Your task to perform on an android device: add a contact Image 0: 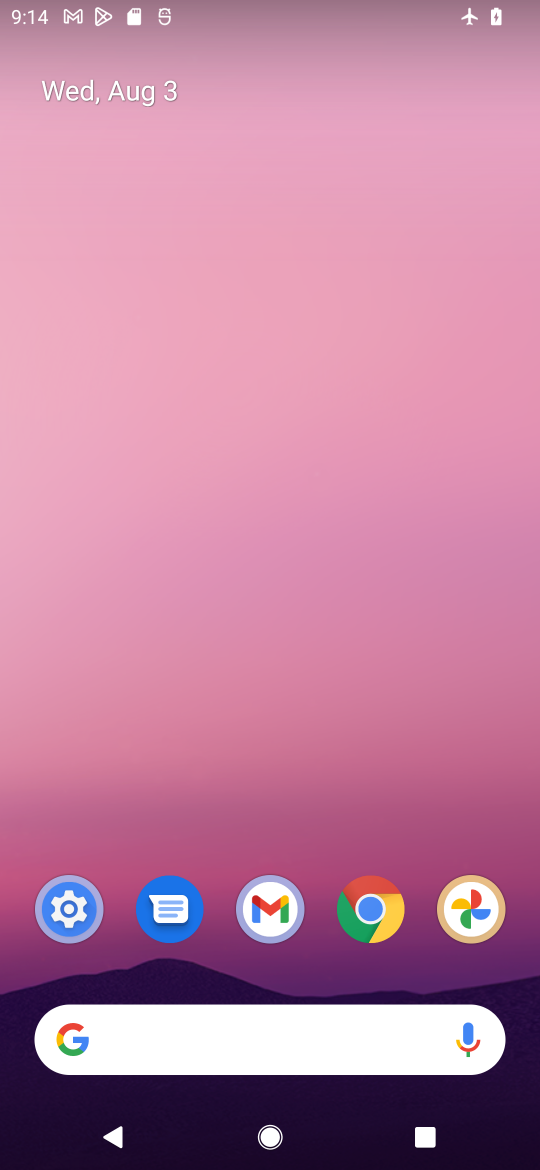
Step 0: press home button
Your task to perform on an android device: add a contact Image 1: 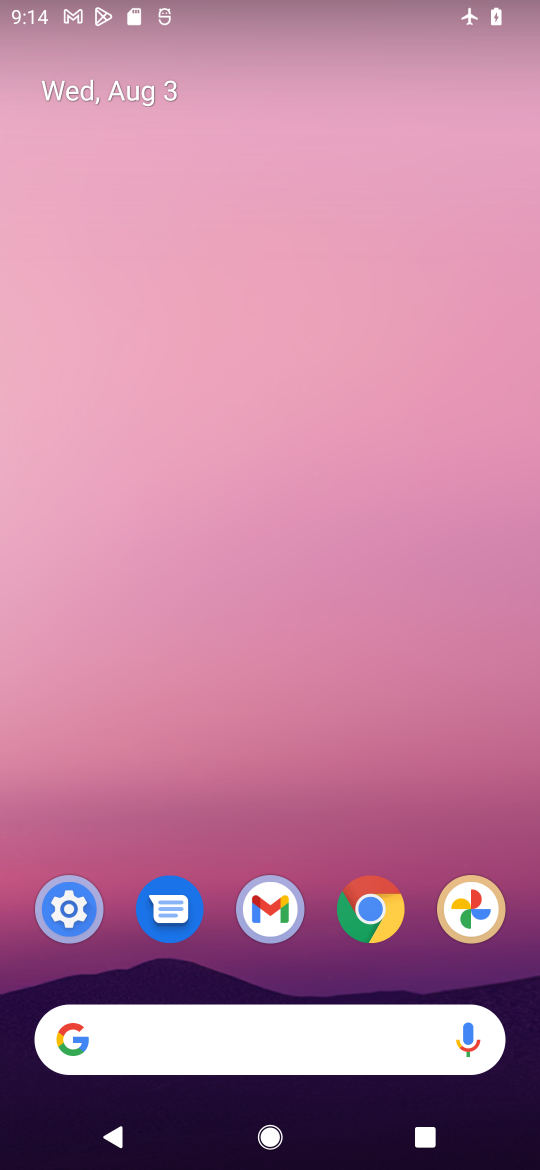
Step 1: drag from (437, 779) to (379, 223)
Your task to perform on an android device: add a contact Image 2: 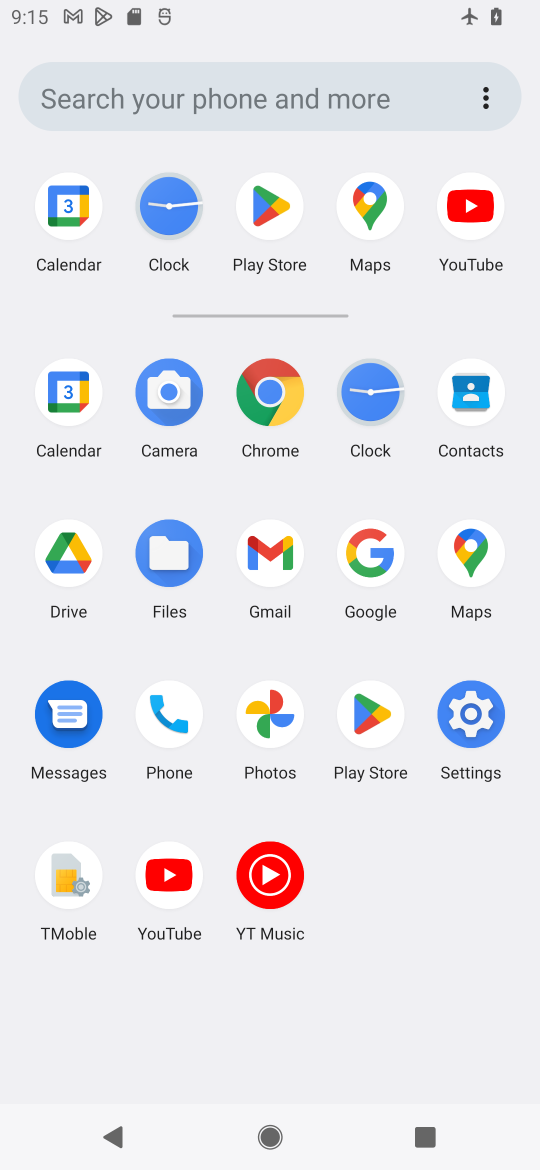
Step 2: click (476, 390)
Your task to perform on an android device: add a contact Image 3: 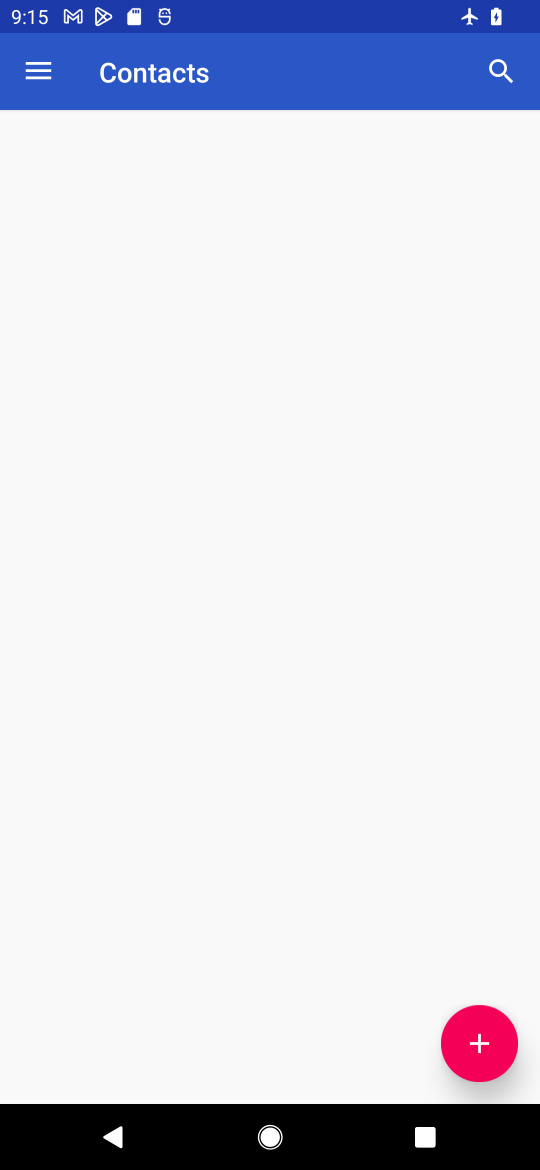
Step 3: click (483, 1039)
Your task to perform on an android device: add a contact Image 4: 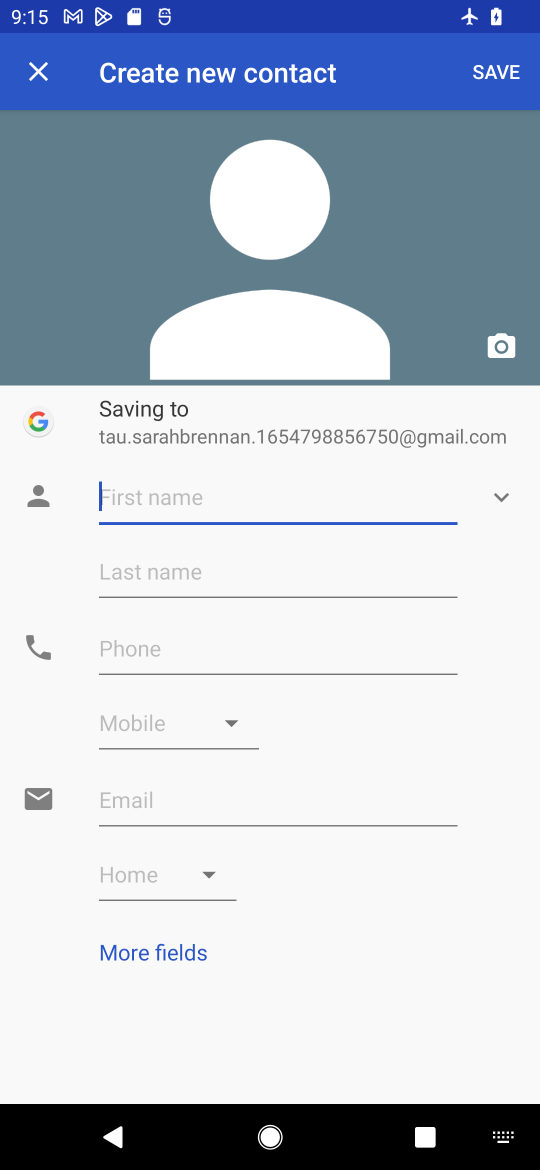
Step 4: click (275, 508)
Your task to perform on an android device: add a contact Image 5: 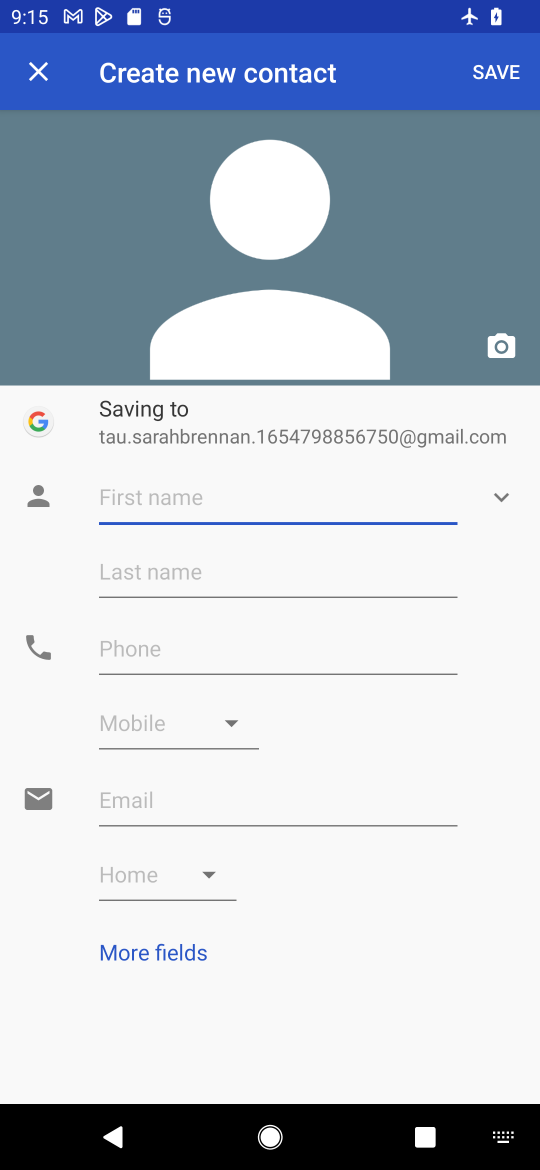
Step 5: type "ddd"
Your task to perform on an android device: add a contact Image 6: 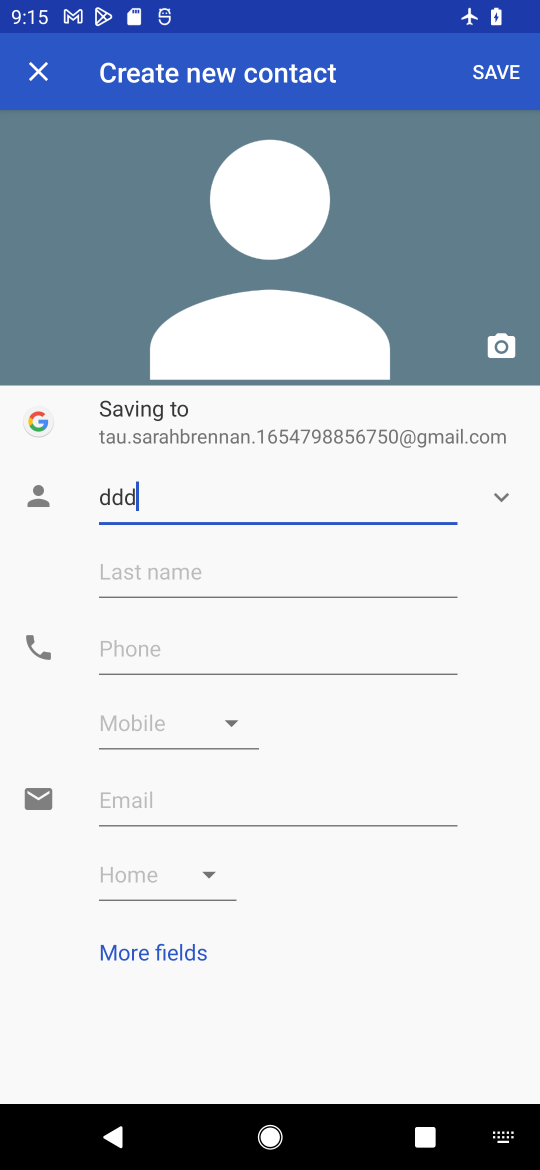
Step 6: click (355, 637)
Your task to perform on an android device: add a contact Image 7: 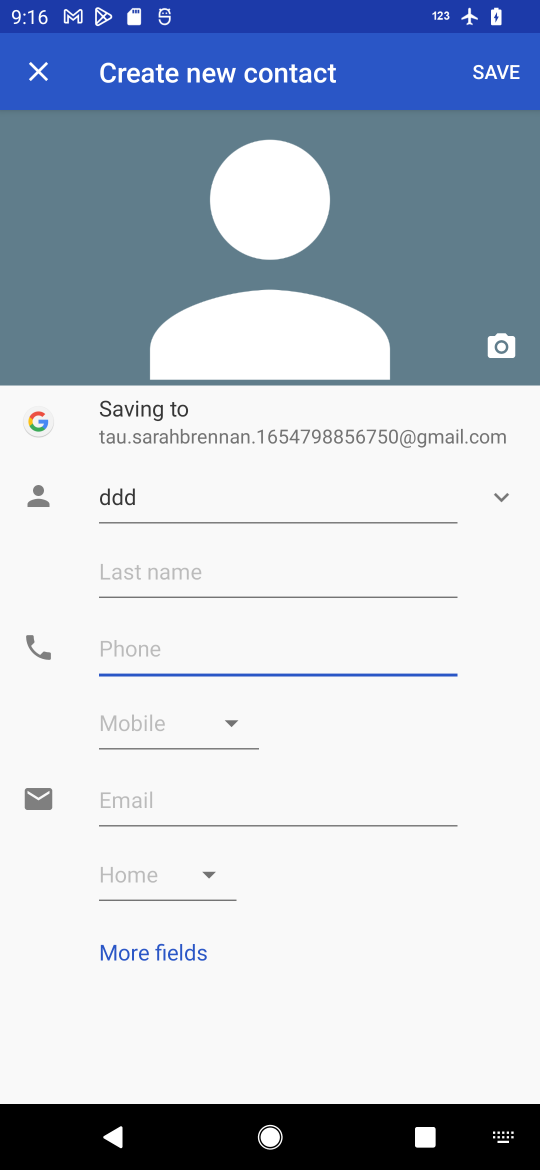
Step 7: type "12345566778"
Your task to perform on an android device: add a contact Image 8: 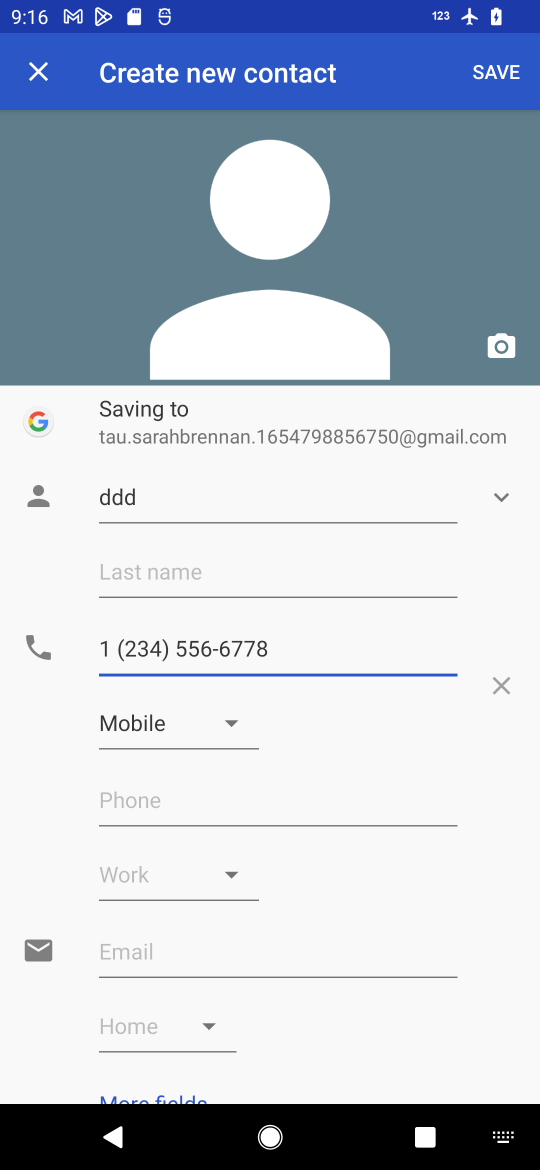
Step 8: click (495, 69)
Your task to perform on an android device: add a contact Image 9: 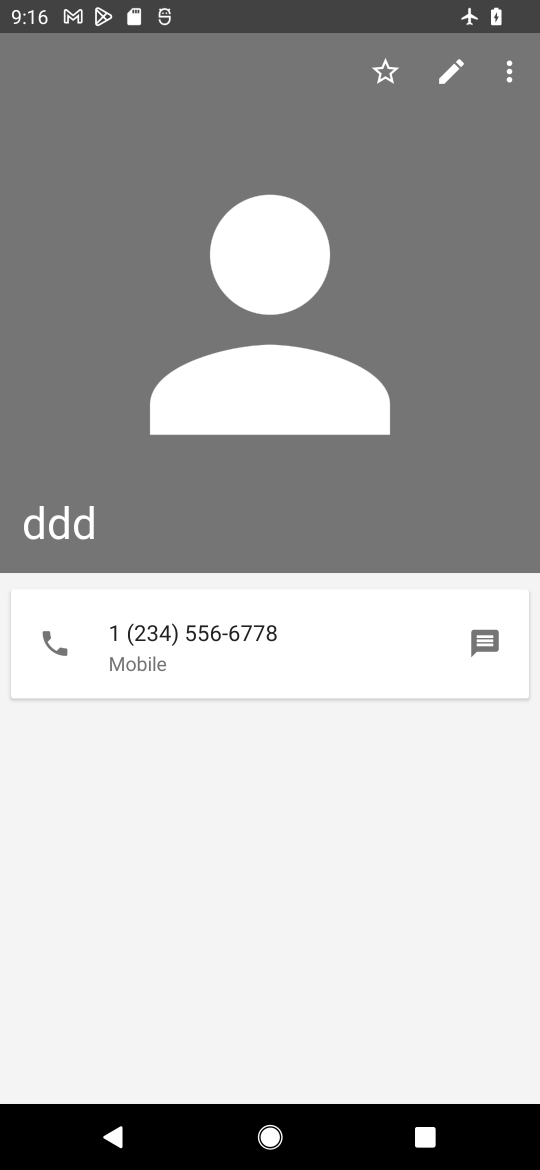
Step 9: task complete